Your task to perform on an android device: Search for sushi restaurants on Maps Image 0: 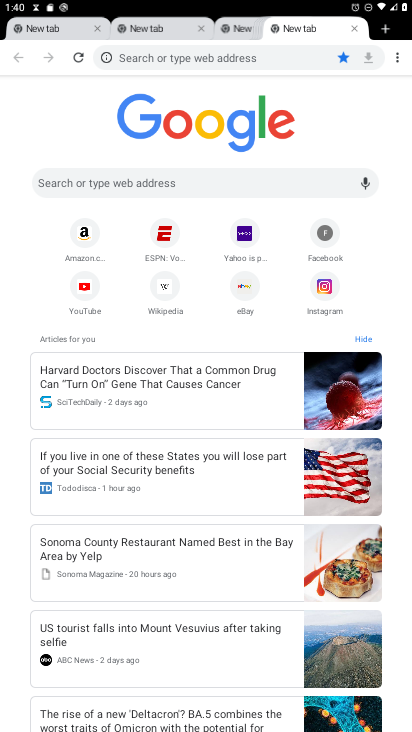
Step 0: press home button
Your task to perform on an android device: Search for sushi restaurants on Maps Image 1: 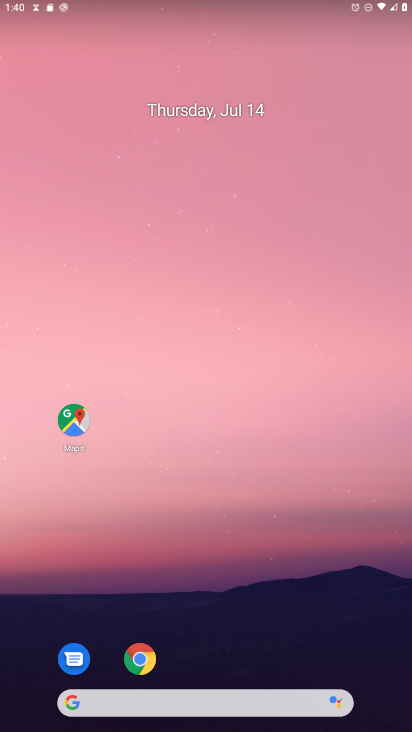
Step 1: drag from (108, 553) to (178, 373)
Your task to perform on an android device: Search for sushi restaurants on Maps Image 2: 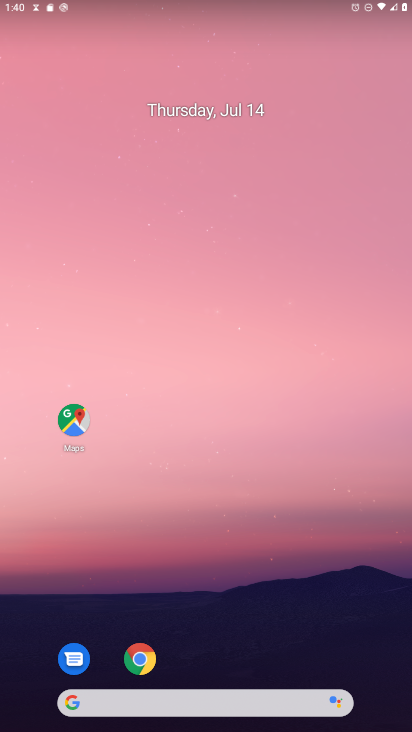
Step 2: drag from (43, 671) to (321, 31)
Your task to perform on an android device: Search for sushi restaurants on Maps Image 3: 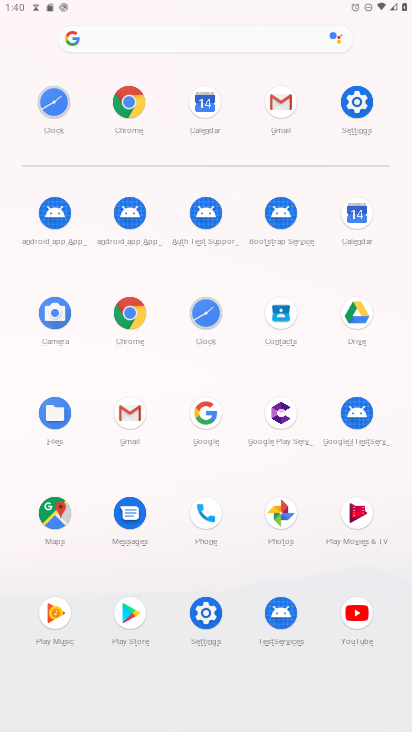
Step 3: click (65, 513)
Your task to perform on an android device: Search for sushi restaurants on Maps Image 4: 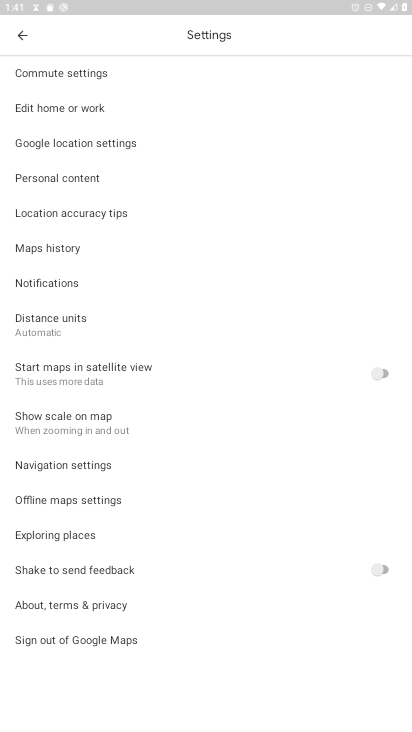
Step 4: click (25, 28)
Your task to perform on an android device: Search for sushi restaurants on Maps Image 5: 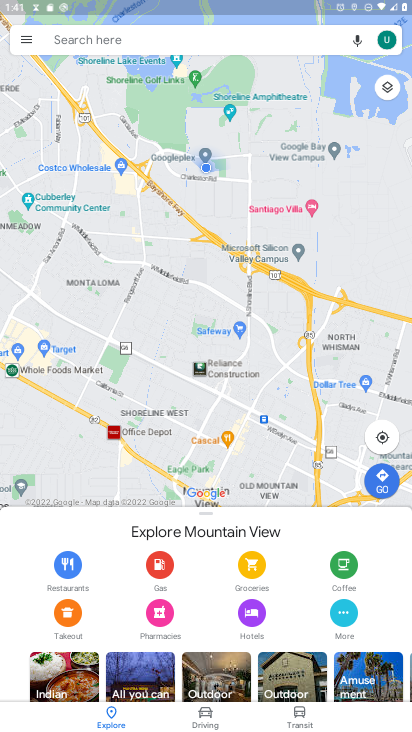
Step 5: click (103, 36)
Your task to perform on an android device: Search for sushi restaurants on Maps Image 6: 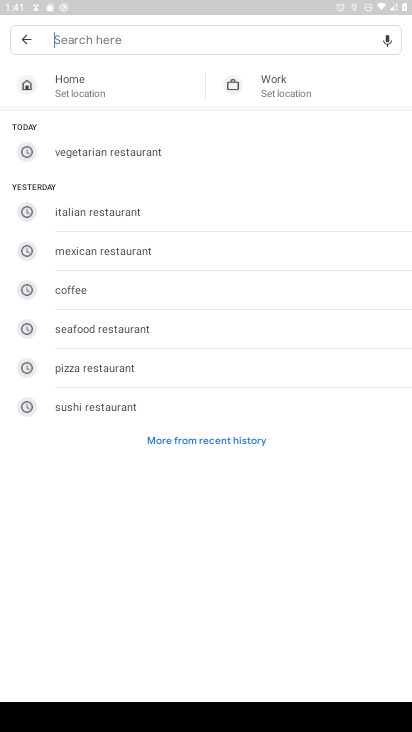
Step 6: type "sushi restaurants"
Your task to perform on an android device: Search for sushi restaurants on Maps Image 7: 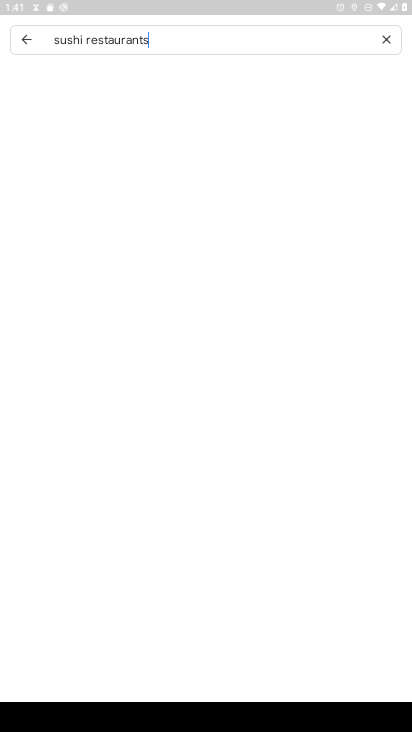
Step 7: type ""
Your task to perform on an android device: Search for sushi restaurants on Maps Image 8: 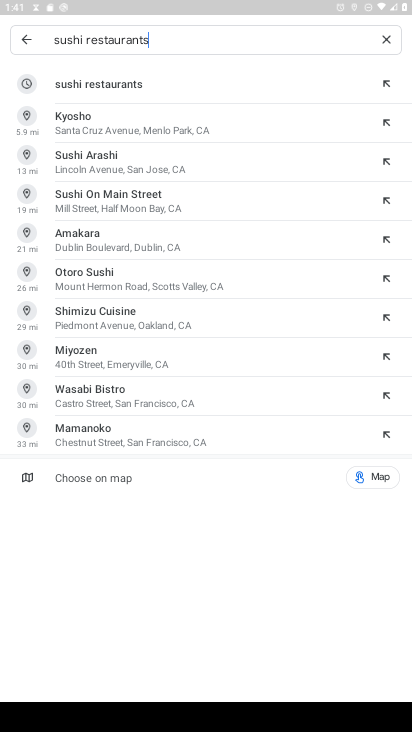
Step 8: click (142, 83)
Your task to perform on an android device: Search for sushi restaurants on Maps Image 9: 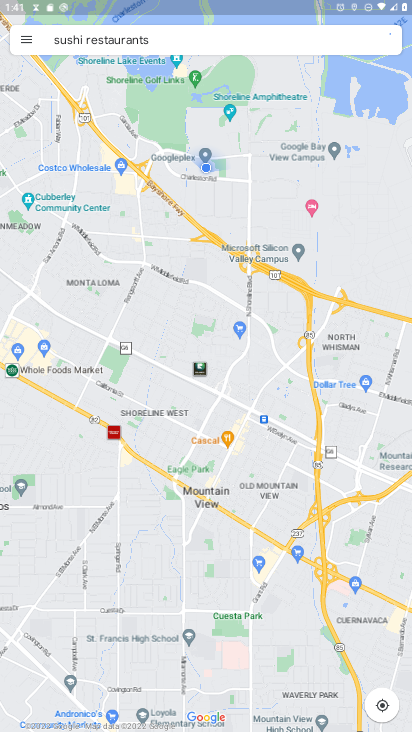
Step 9: task complete